Your task to perform on an android device: find snoozed emails in the gmail app Image 0: 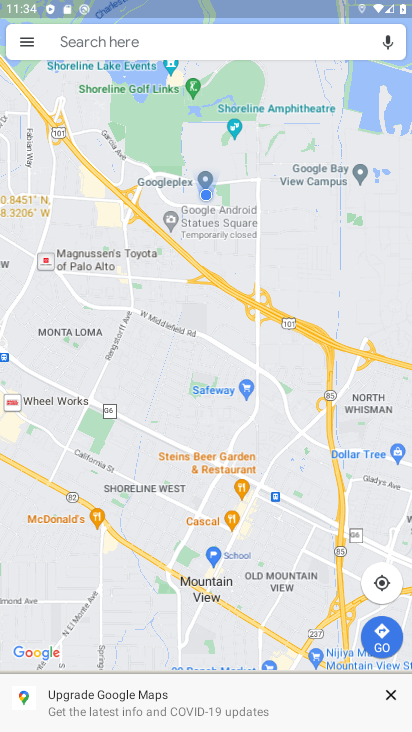
Step 0: press home button
Your task to perform on an android device: find snoozed emails in the gmail app Image 1: 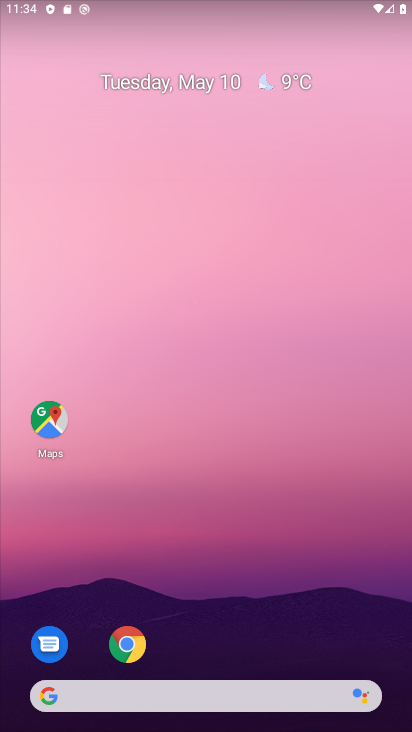
Step 1: drag from (205, 639) to (287, 114)
Your task to perform on an android device: find snoozed emails in the gmail app Image 2: 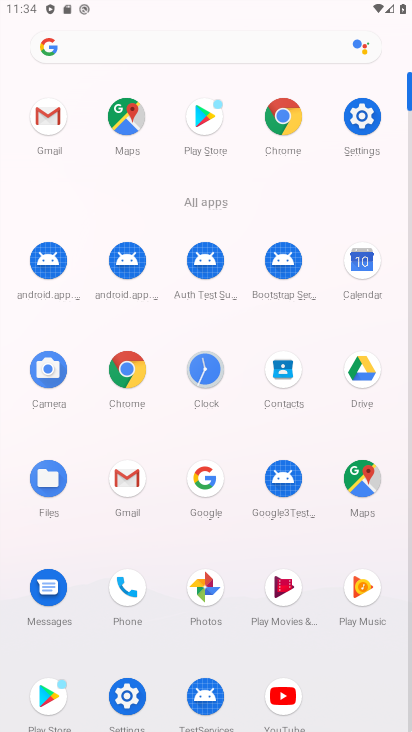
Step 2: click (135, 489)
Your task to perform on an android device: find snoozed emails in the gmail app Image 3: 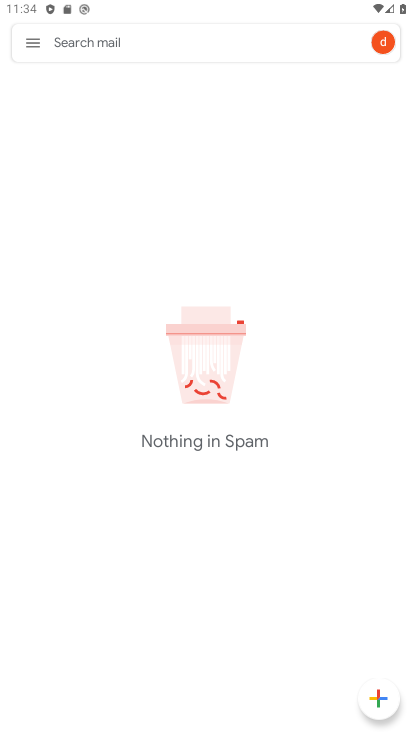
Step 3: click (32, 39)
Your task to perform on an android device: find snoozed emails in the gmail app Image 4: 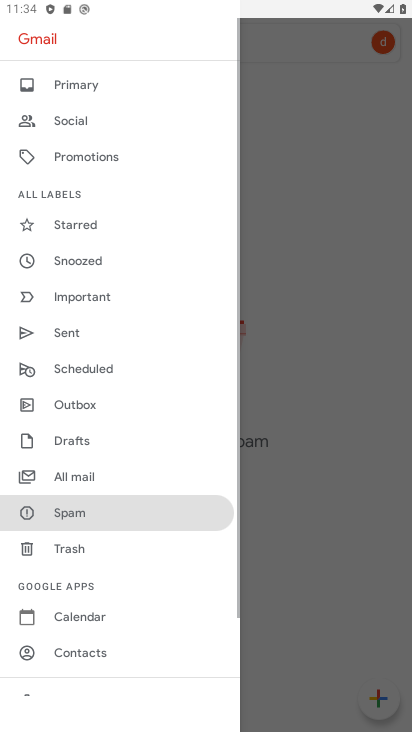
Step 4: click (109, 262)
Your task to perform on an android device: find snoozed emails in the gmail app Image 5: 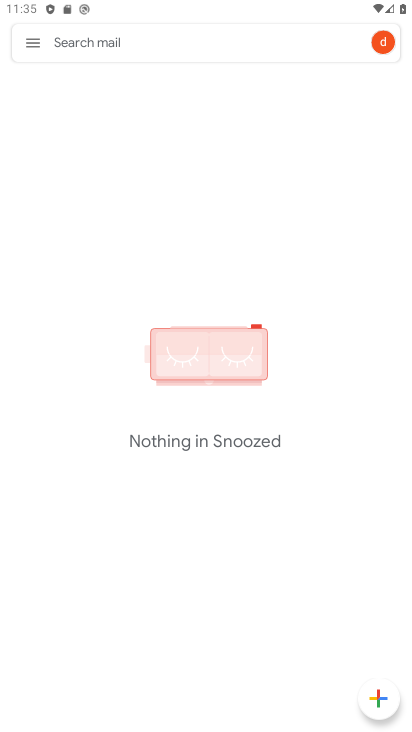
Step 5: task complete